Your task to perform on an android device: Empty the shopping cart on bestbuy. Image 0: 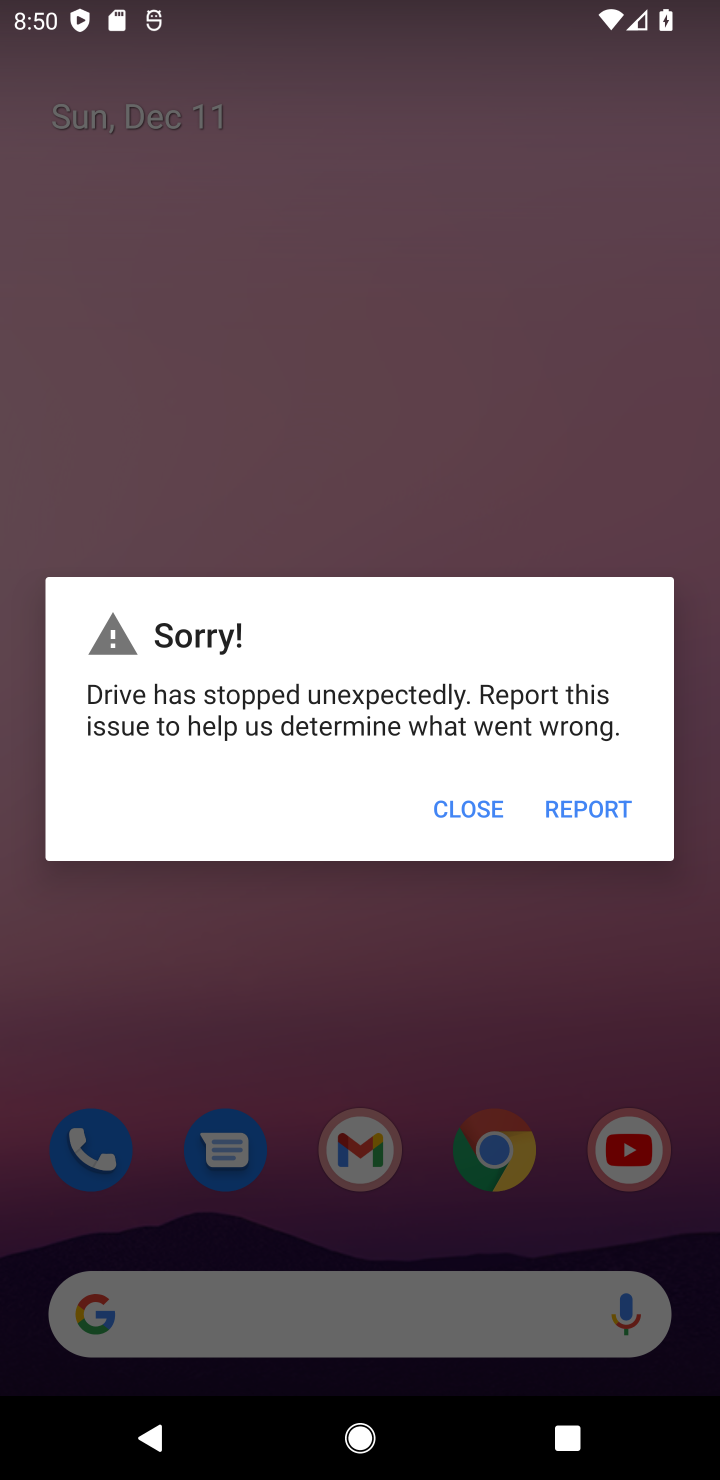
Step 0: press home button
Your task to perform on an android device: Empty the shopping cart on bestbuy. Image 1: 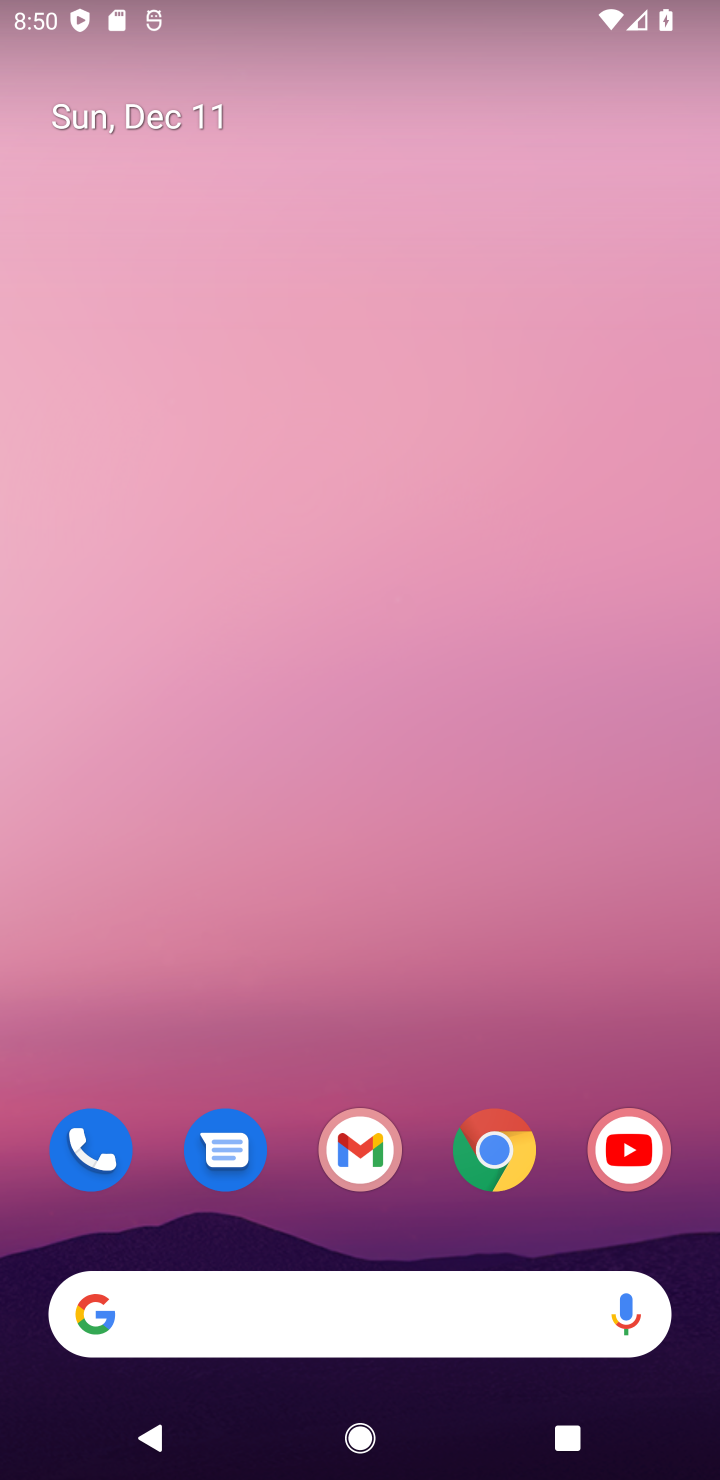
Step 1: click (493, 1157)
Your task to perform on an android device: Empty the shopping cart on bestbuy. Image 2: 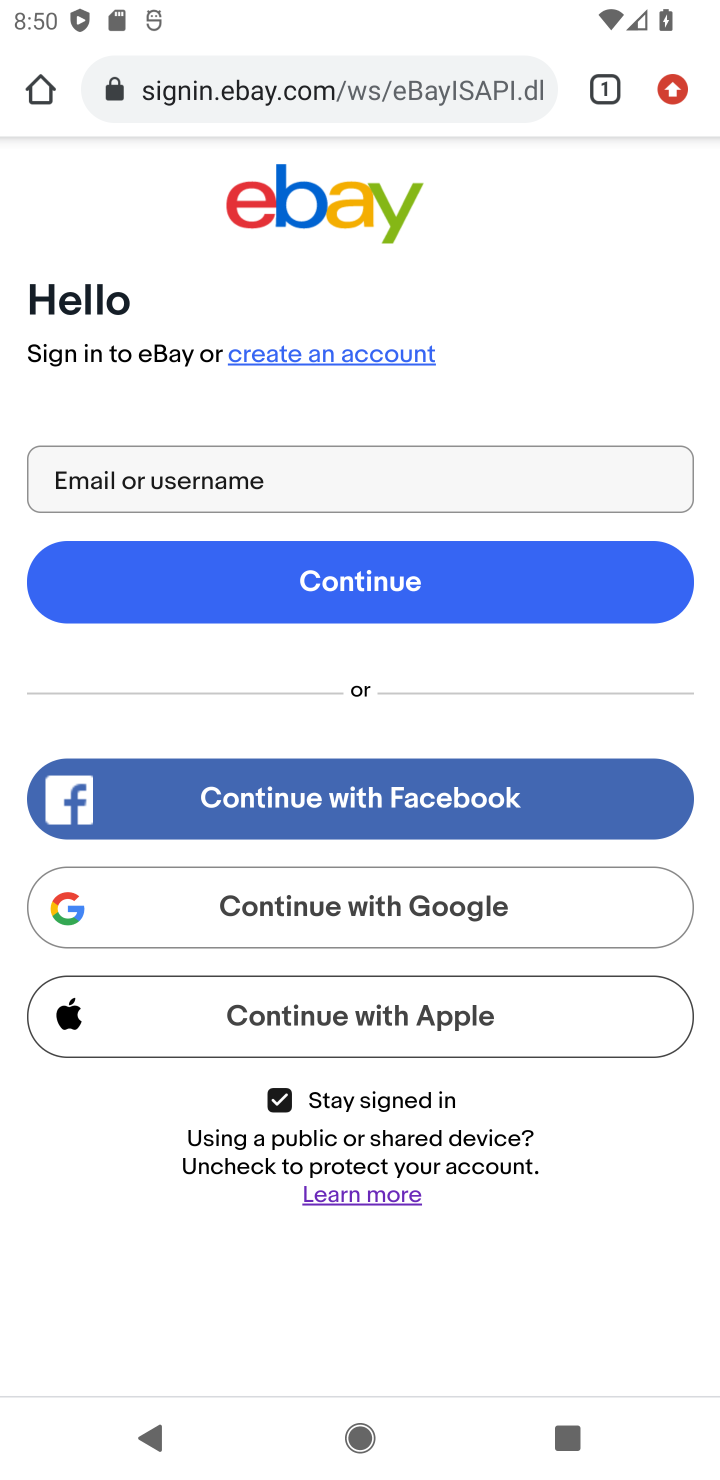
Step 2: click (289, 93)
Your task to perform on an android device: Empty the shopping cart on bestbuy. Image 3: 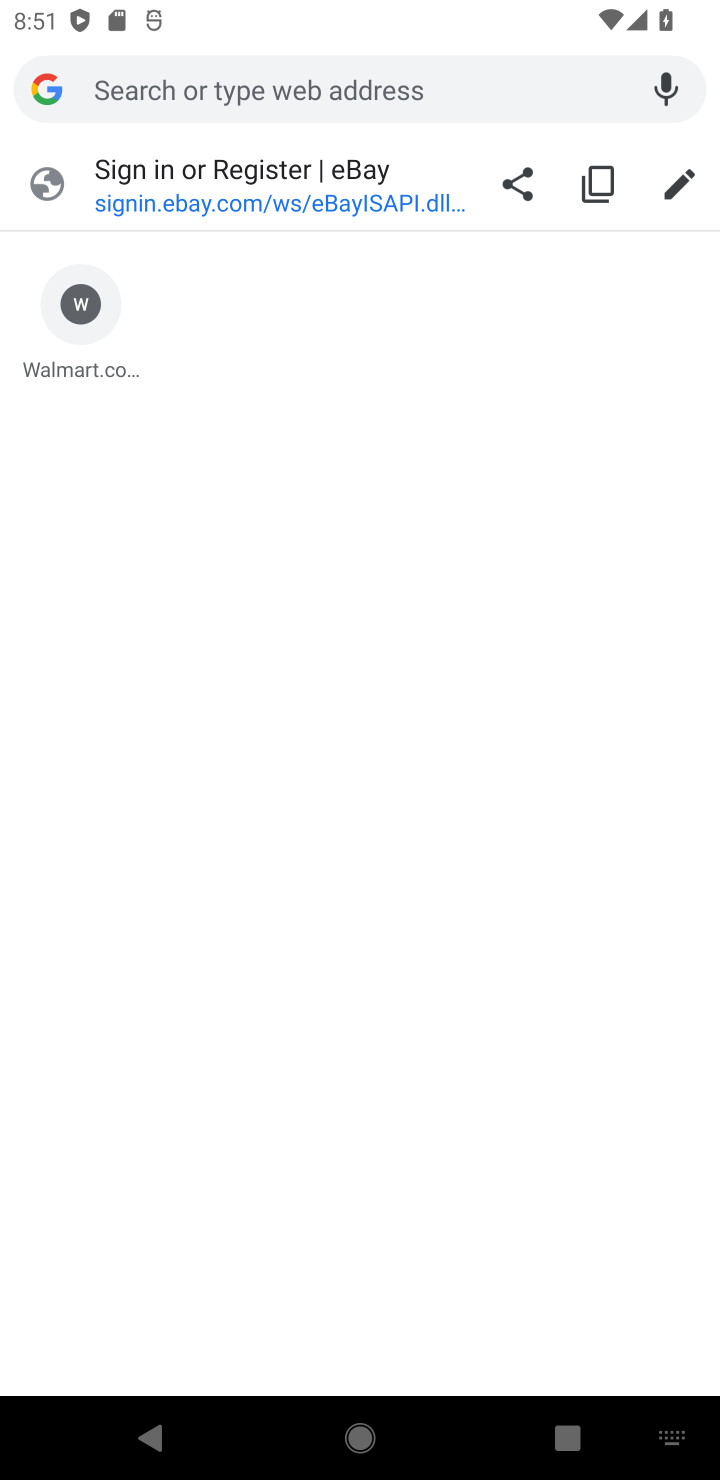
Step 3: type "bestbuy"
Your task to perform on an android device: Empty the shopping cart on bestbuy. Image 4: 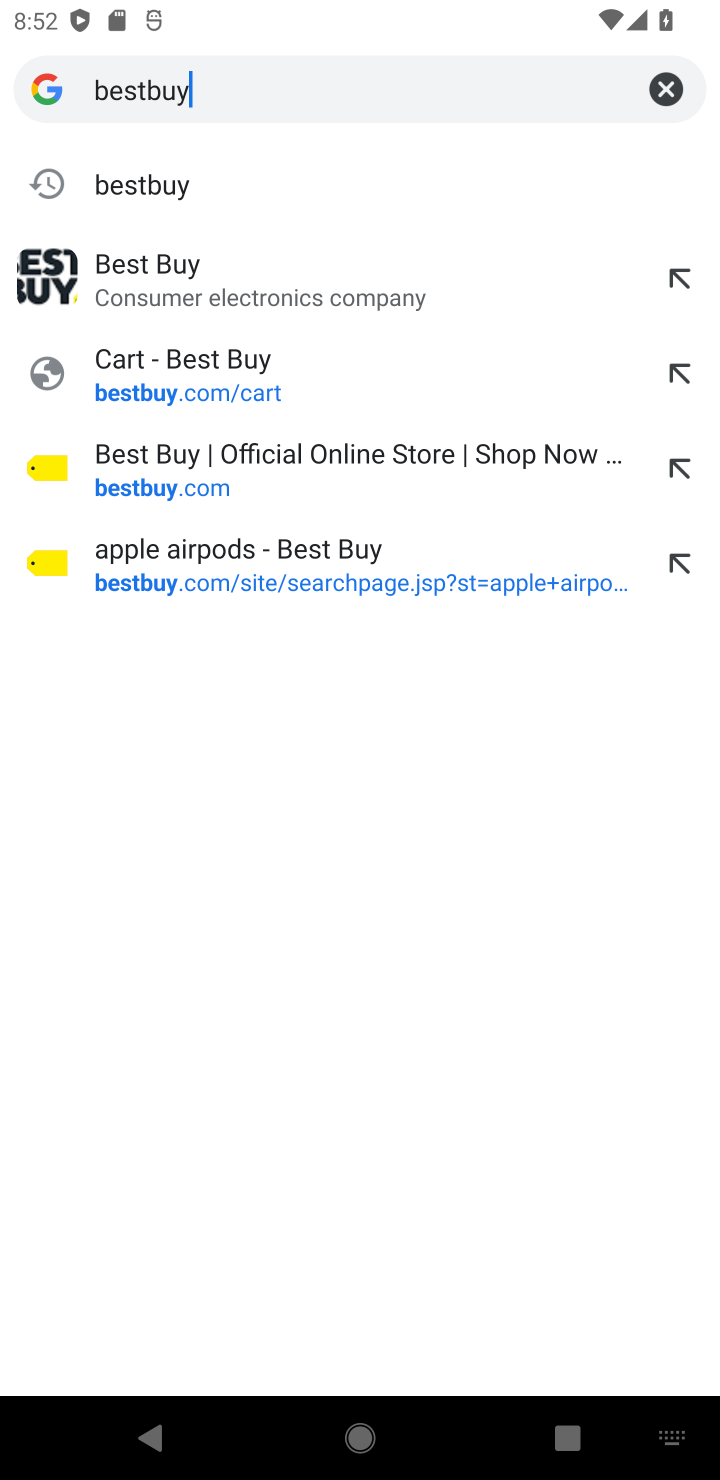
Step 4: click (170, 188)
Your task to perform on an android device: Empty the shopping cart on bestbuy. Image 5: 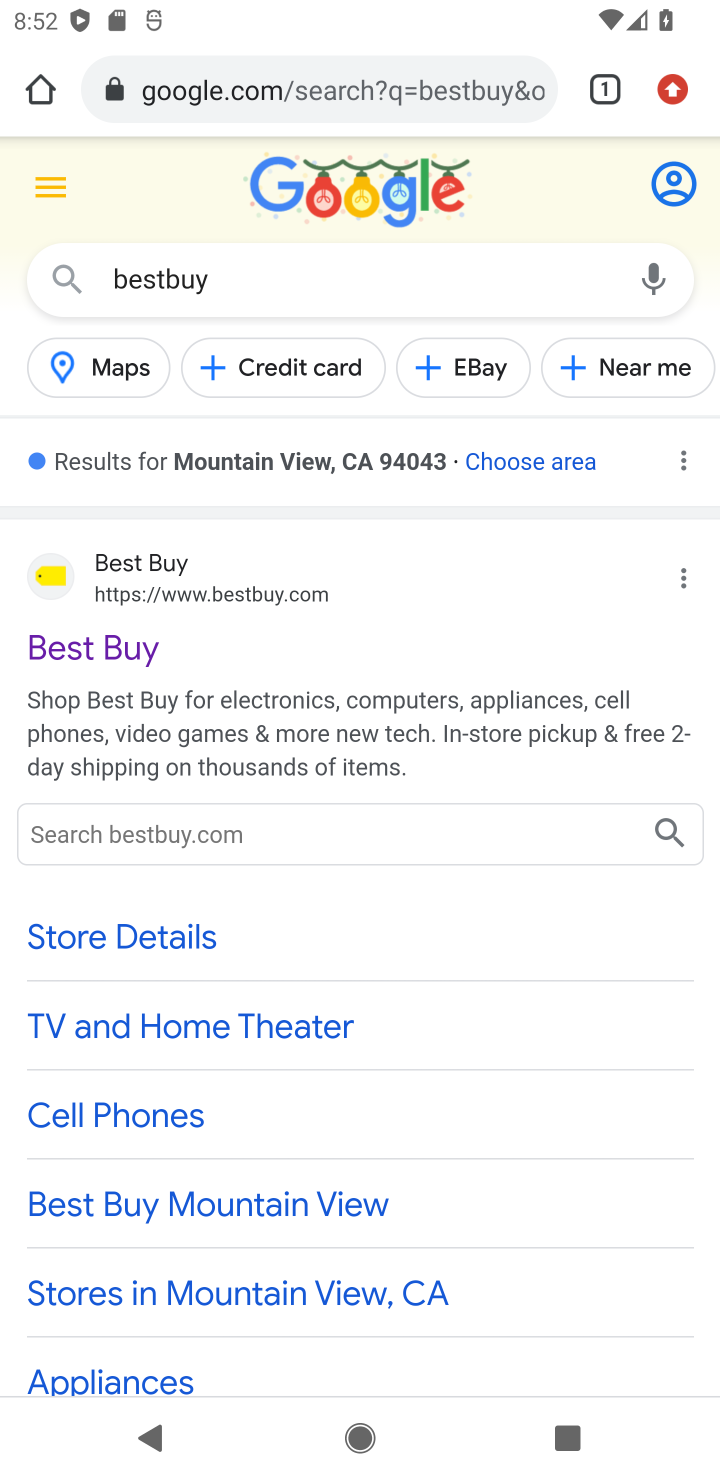
Step 5: click (147, 636)
Your task to perform on an android device: Empty the shopping cart on bestbuy. Image 6: 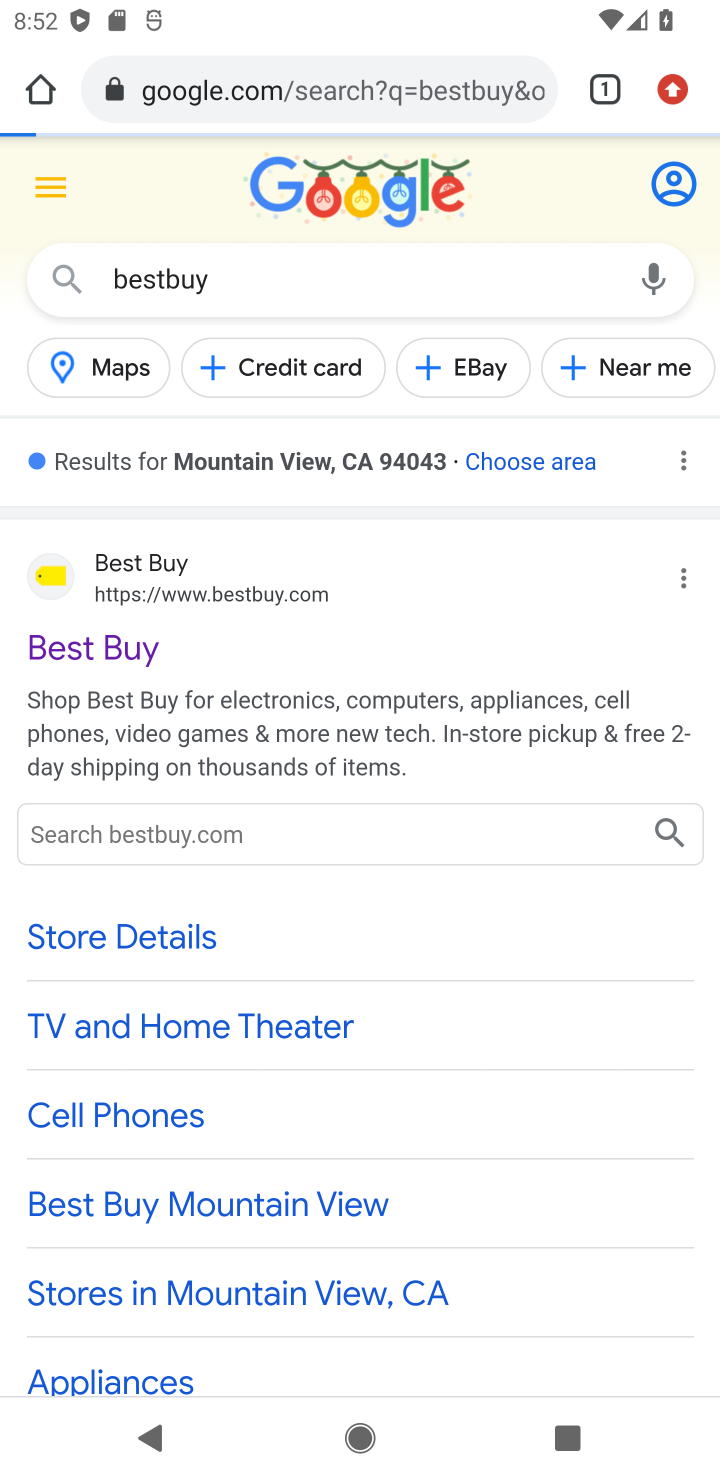
Step 6: click (133, 656)
Your task to perform on an android device: Empty the shopping cart on bestbuy. Image 7: 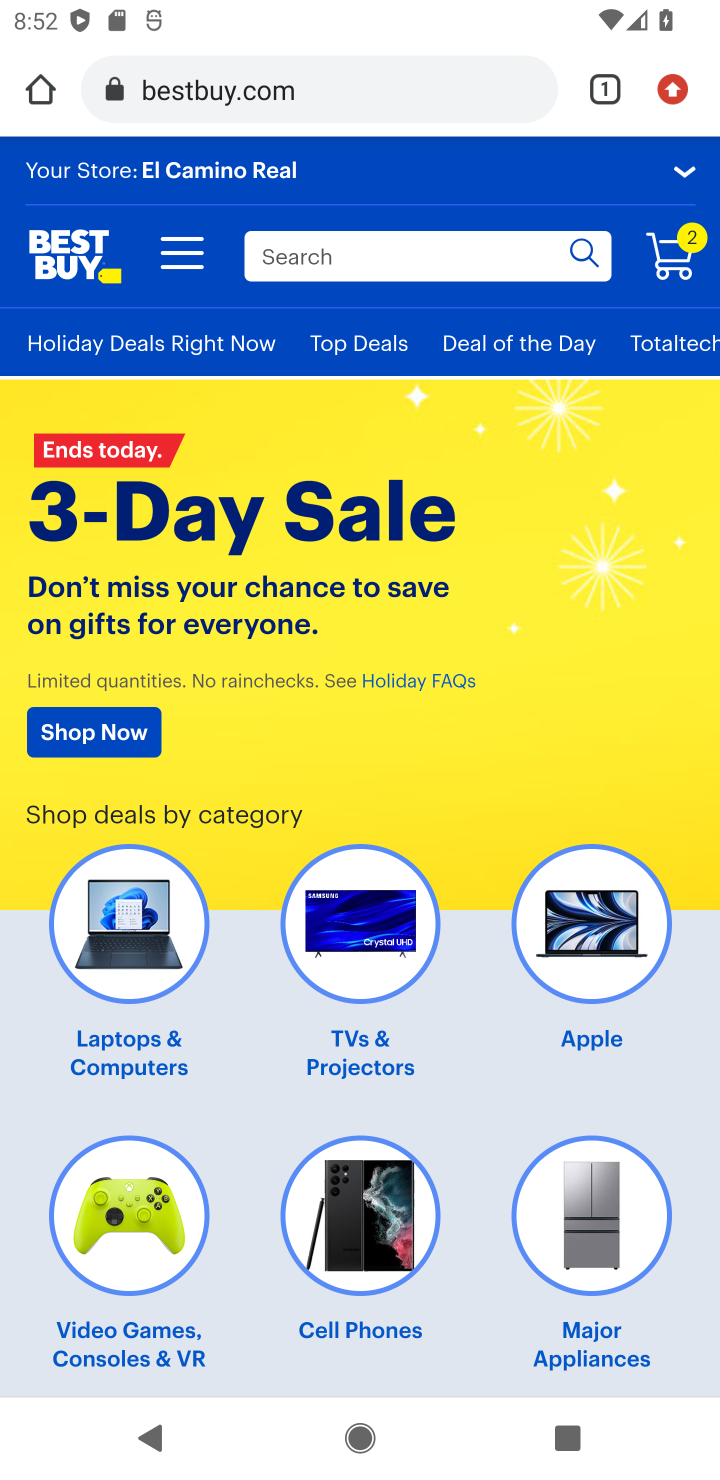
Step 7: click (682, 251)
Your task to perform on an android device: Empty the shopping cart on bestbuy. Image 8: 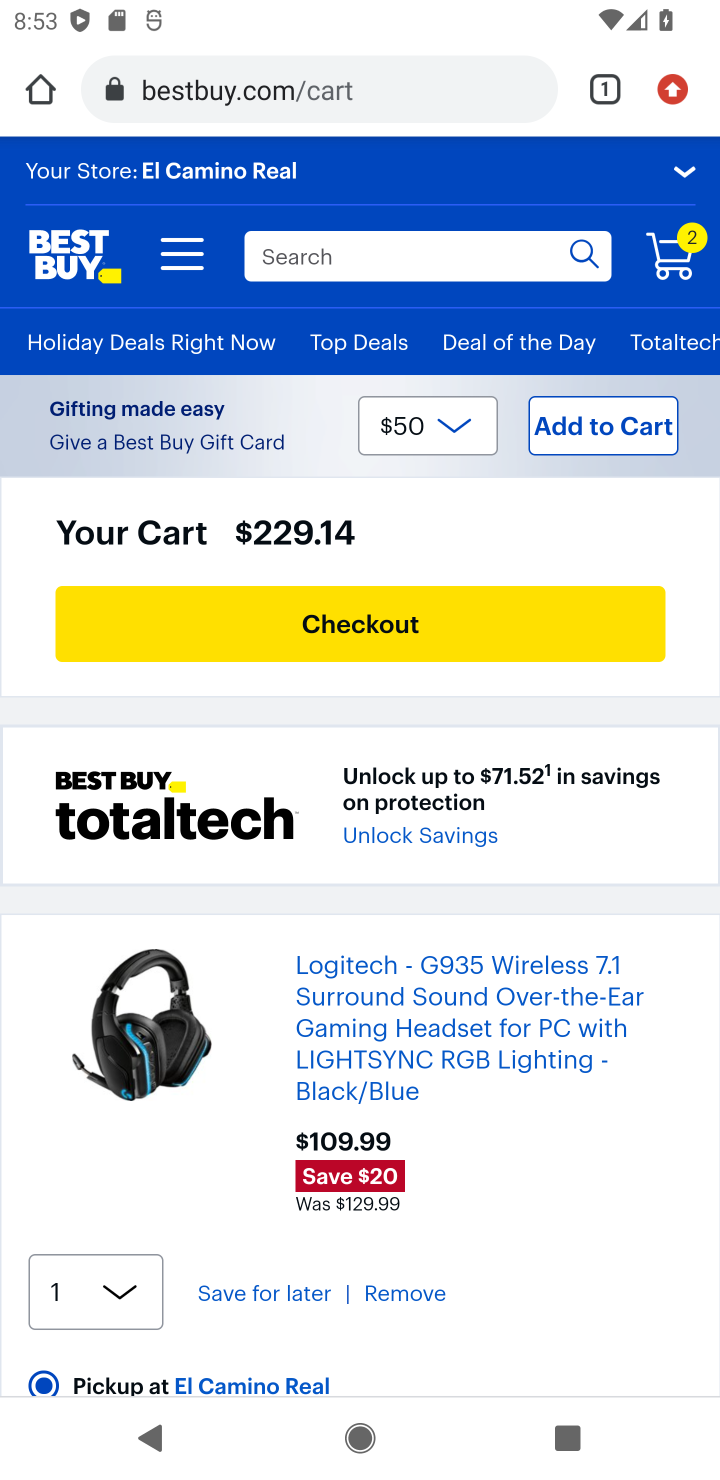
Step 8: click (398, 1290)
Your task to perform on an android device: Empty the shopping cart on bestbuy. Image 9: 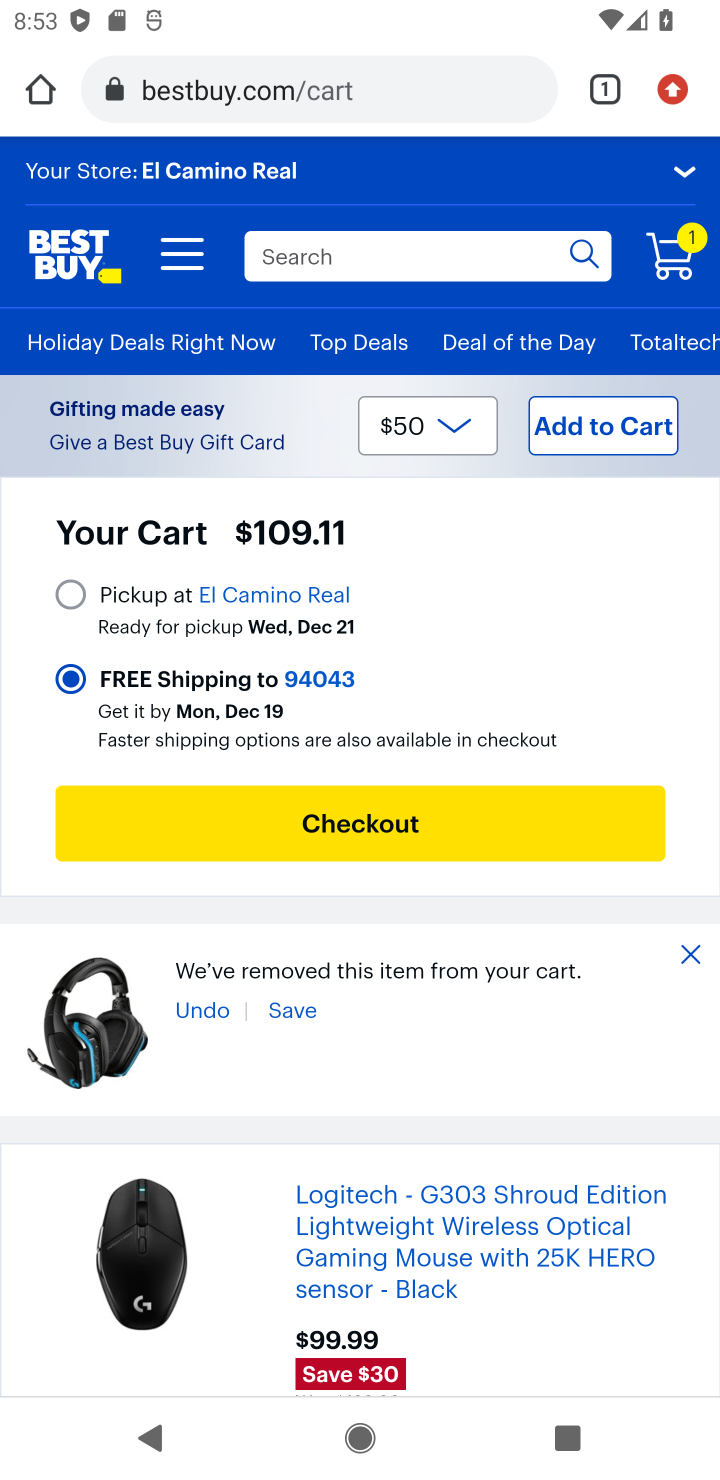
Step 9: drag from (490, 1207) to (625, 666)
Your task to perform on an android device: Empty the shopping cart on bestbuy. Image 10: 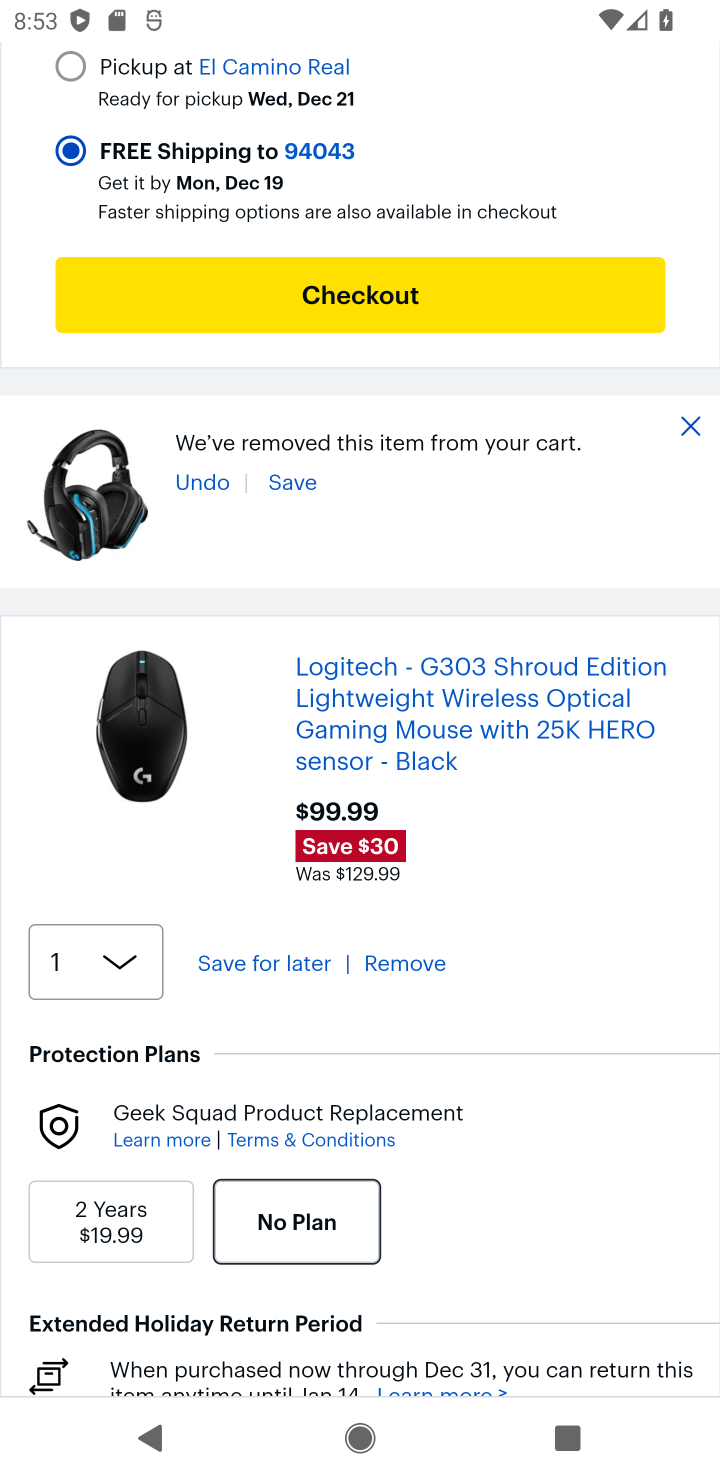
Step 10: click (416, 952)
Your task to perform on an android device: Empty the shopping cart on bestbuy. Image 11: 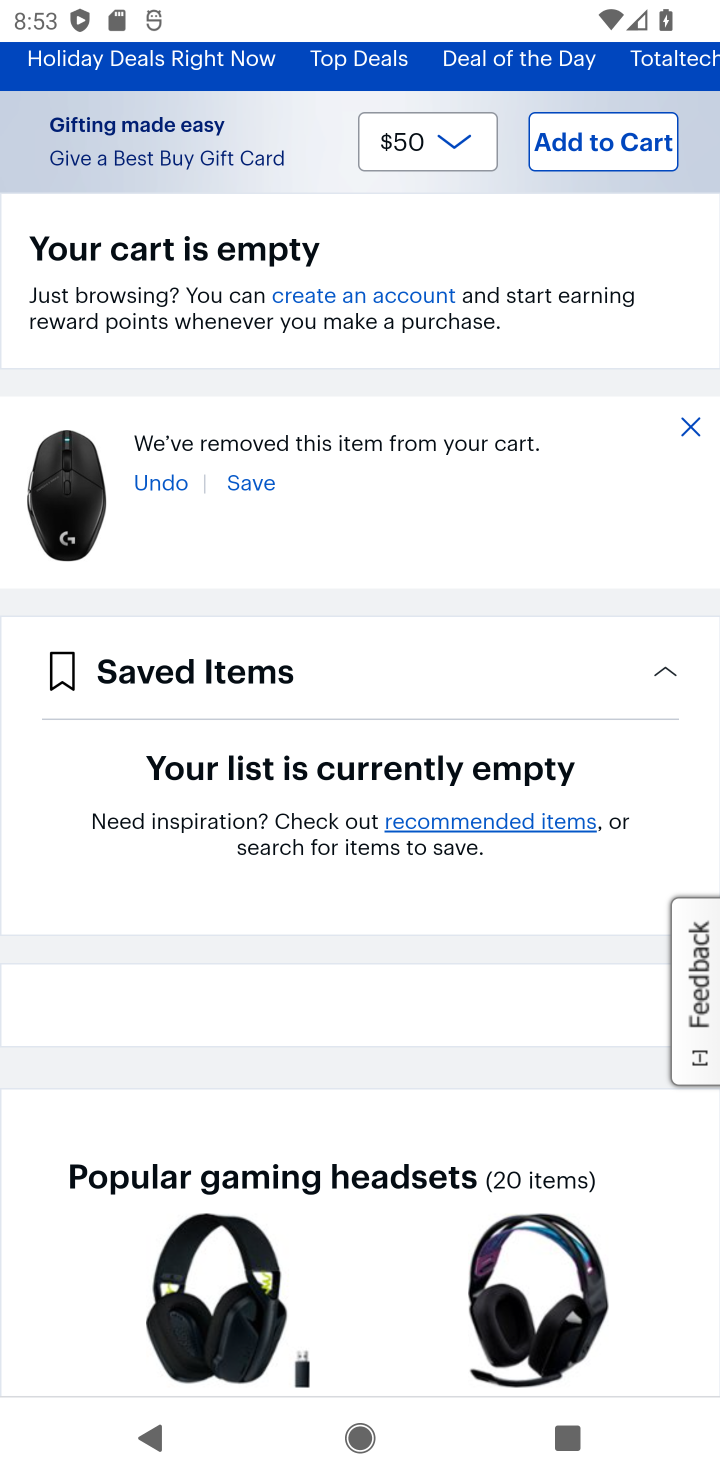
Step 11: task complete